Your task to perform on an android device: turn on the 12-hour format for clock Image 0: 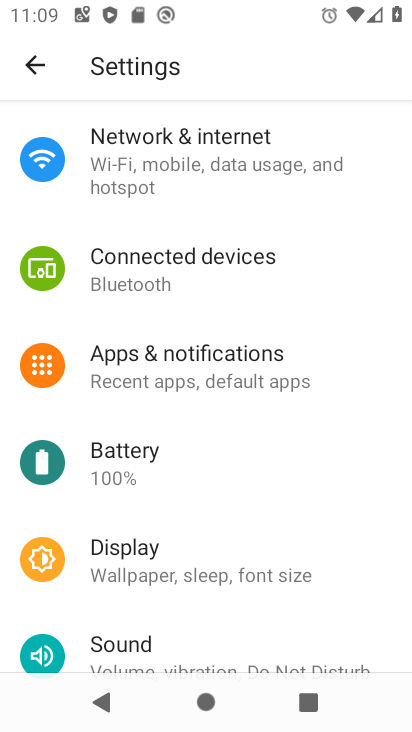
Step 0: press home button
Your task to perform on an android device: turn on the 12-hour format for clock Image 1: 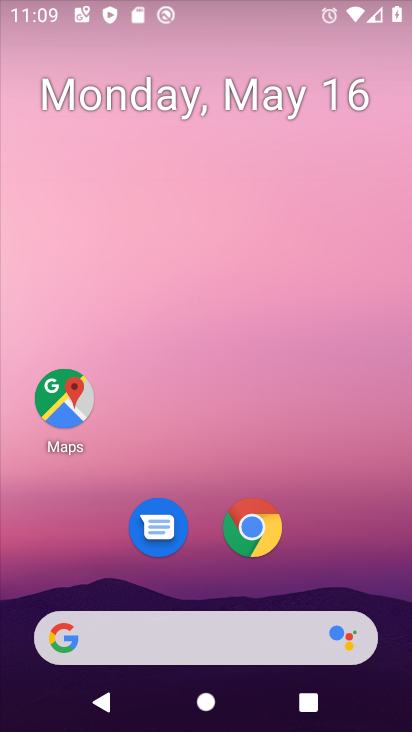
Step 1: drag from (360, 591) to (335, 18)
Your task to perform on an android device: turn on the 12-hour format for clock Image 2: 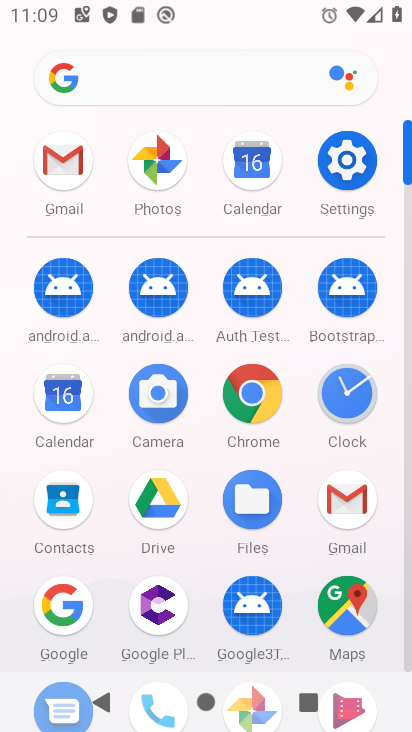
Step 2: click (345, 395)
Your task to perform on an android device: turn on the 12-hour format for clock Image 3: 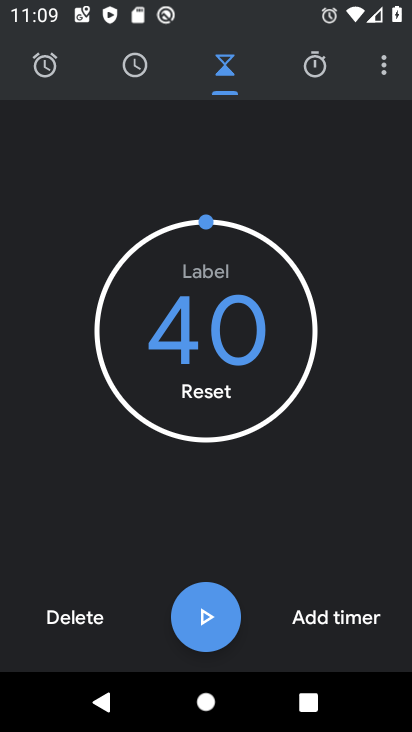
Step 3: click (386, 72)
Your task to perform on an android device: turn on the 12-hour format for clock Image 4: 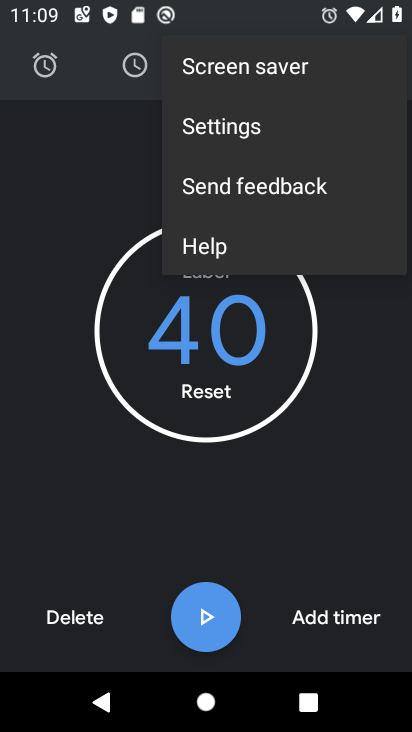
Step 4: click (225, 138)
Your task to perform on an android device: turn on the 12-hour format for clock Image 5: 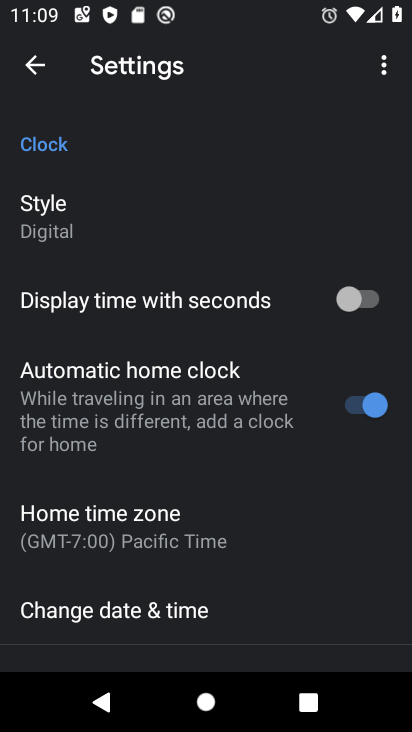
Step 5: click (109, 615)
Your task to perform on an android device: turn on the 12-hour format for clock Image 6: 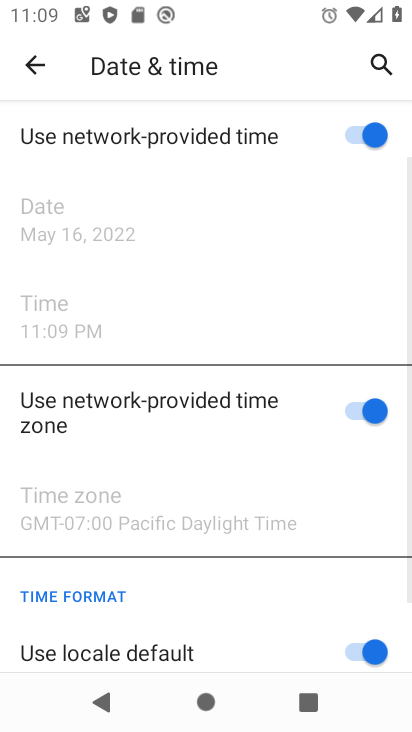
Step 6: task complete